Your task to perform on an android device: turn on translation in the chrome app Image 0: 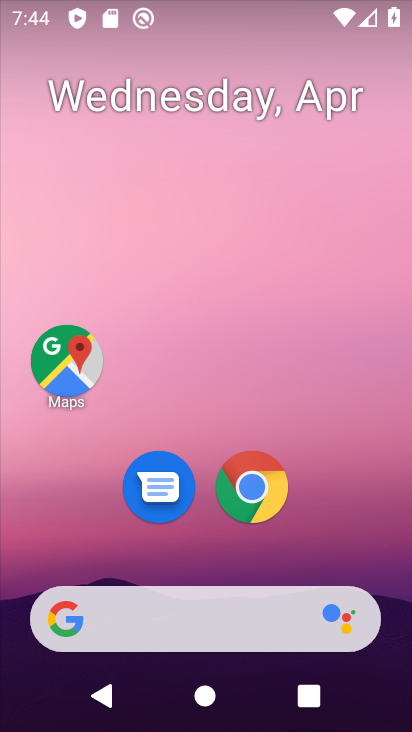
Step 0: drag from (314, 256) to (313, 50)
Your task to perform on an android device: turn on translation in the chrome app Image 1: 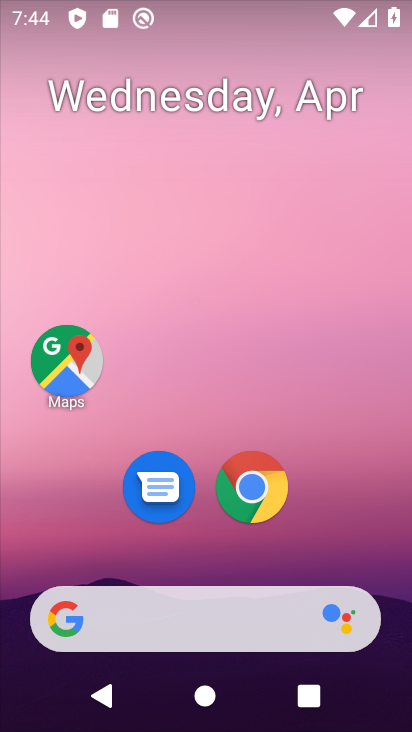
Step 1: drag from (350, 319) to (359, 33)
Your task to perform on an android device: turn on translation in the chrome app Image 2: 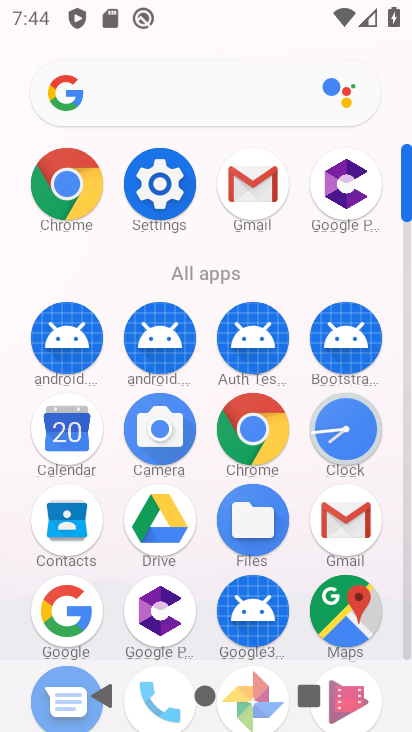
Step 2: click (255, 427)
Your task to perform on an android device: turn on translation in the chrome app Image 3: 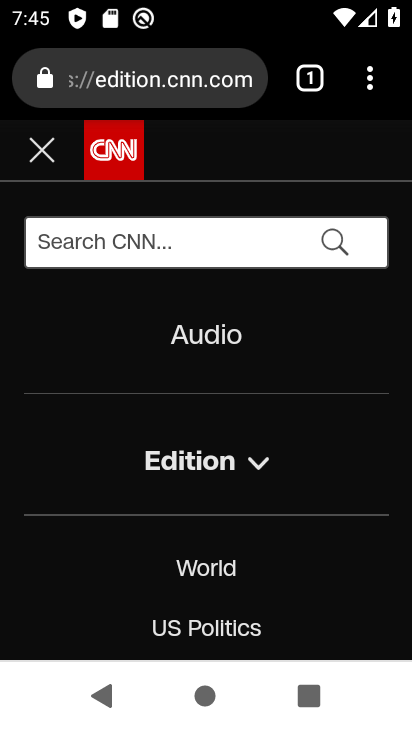
Step 3: drag from (367, 61) to (170, 557)
Your task to perform on an android device: turn on translation in the chrome app Image 4: 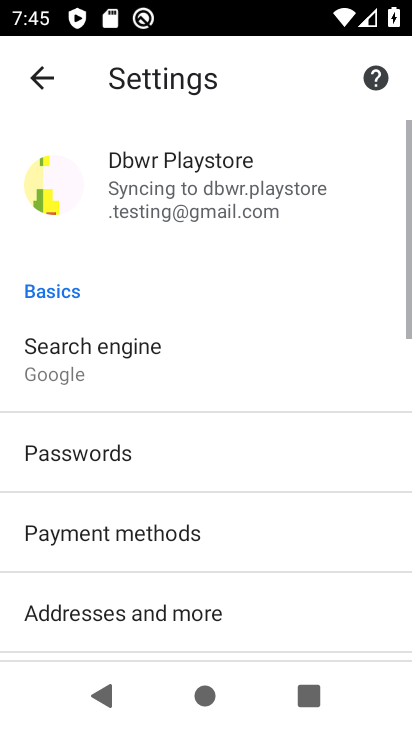
Step 4: drag from (294, 553) to (347, 126)
Your task to perform on an android device: turn on translation in the chrome app Image 5: 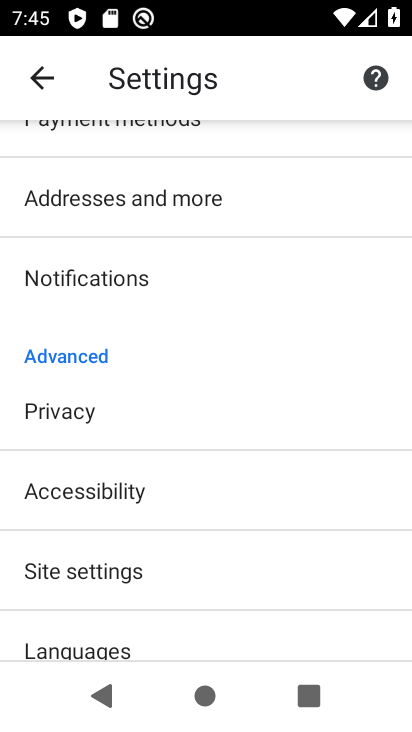
Step 5: drag from (201, 521) to (261, 247)
Your task to perform on an android device: turn on translation in the chrome app Image 6: 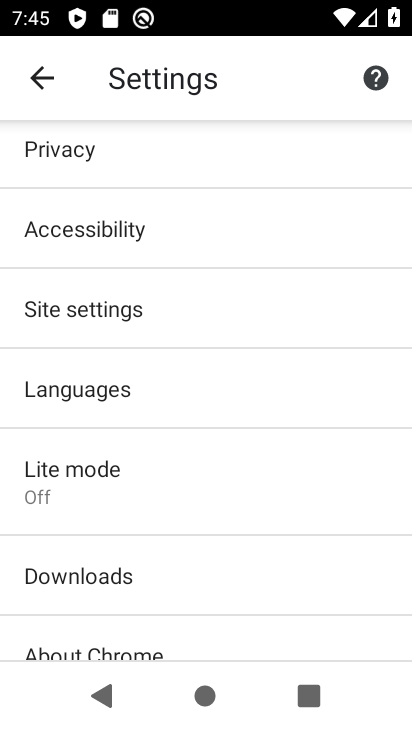
Step 6: click (130, 390)
Your task to perform on an android device: turn on translation in the chrome app Image 7: 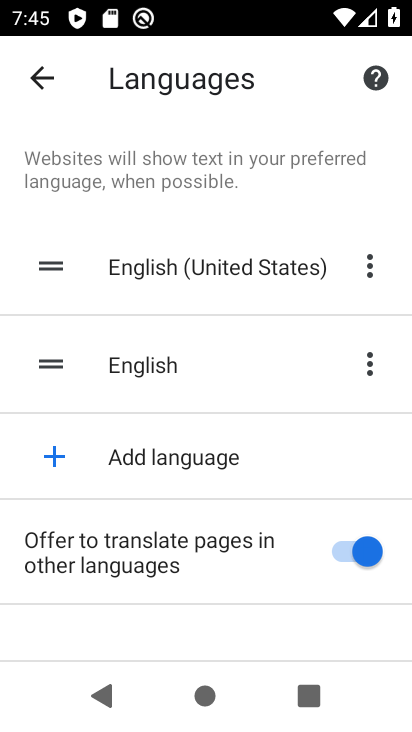
Step 7: click (363, 551)
Your task to perform on an android device: turn on translation in the chrome app Image 8: 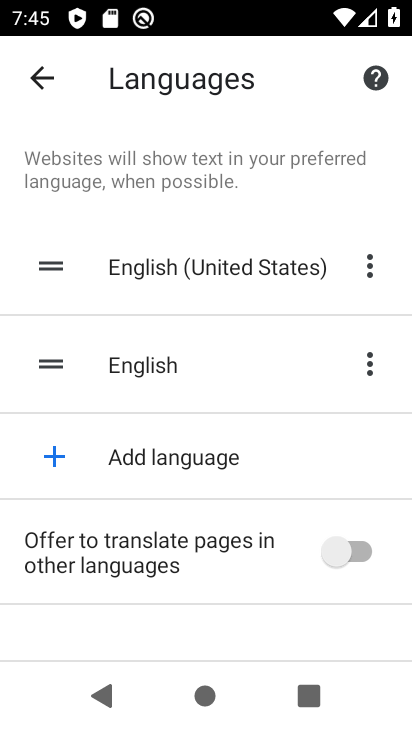
Step 8: task complete